Your task to perform on an android device: Open Google Chrome and click the shortcut for Amazon.com Image 0: 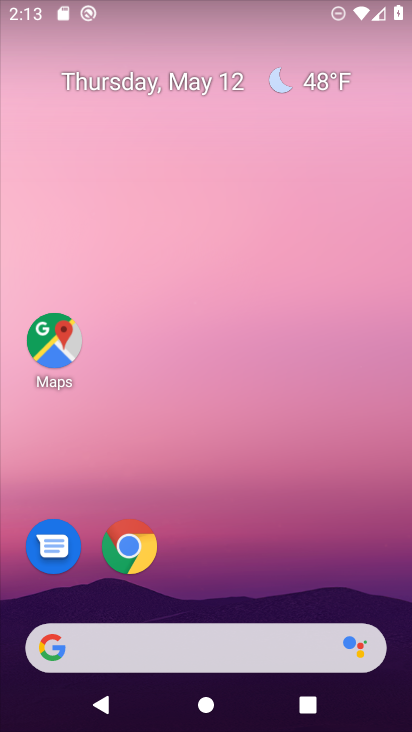
Step 0: drag from (287, 460) to (261, 309)
Your task to perform on an android device: Open Google Chrome and click the shortcut for Amazon.com Image 1: 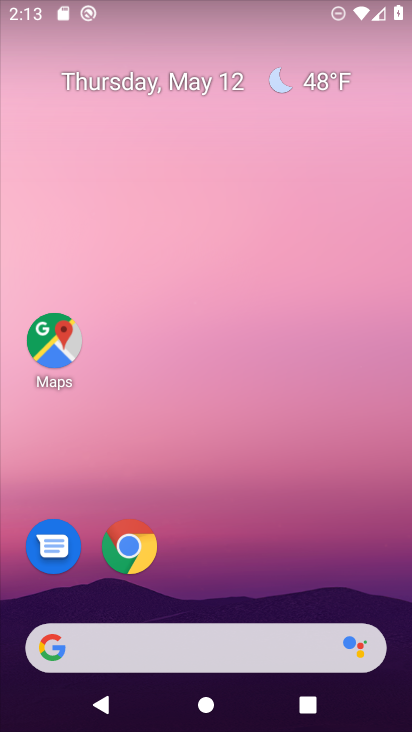
Step 1: drag from (272, 677) to (216, 106)
Your task to perform on an android device: Open Google Chrome and click the shortcut for Amazon.com Image 2: 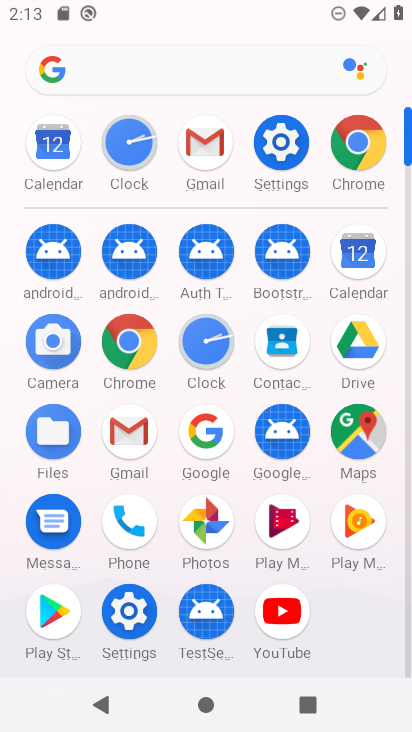
Step 2: click (345, 157)
Your task to perform on an android device: Open Google Chrome and click the shortcut for Amazon.com Image 3: 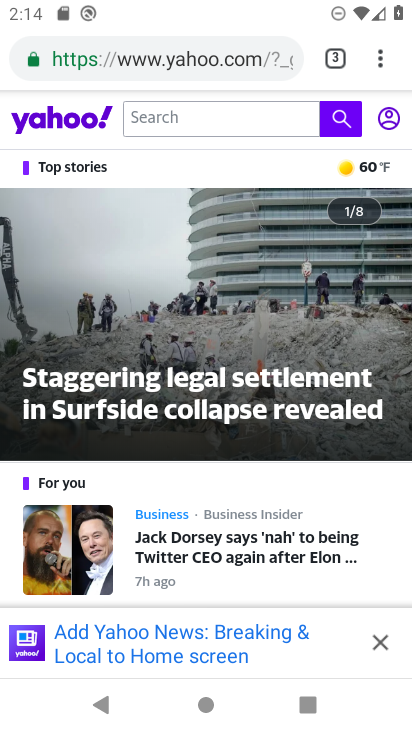
Step 3: click (375, 55)
Your task to perform on an android device: Open Google Chrome and click the shortcut for Amazon.com Image 4: 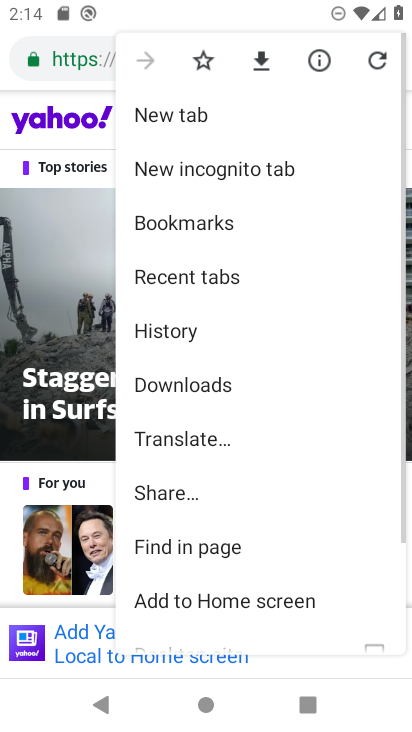
Step 4: click (223, 110)
Your task to perform on an android device: Open Google Chrome and click the shortcut for Amazon.com Image 5: 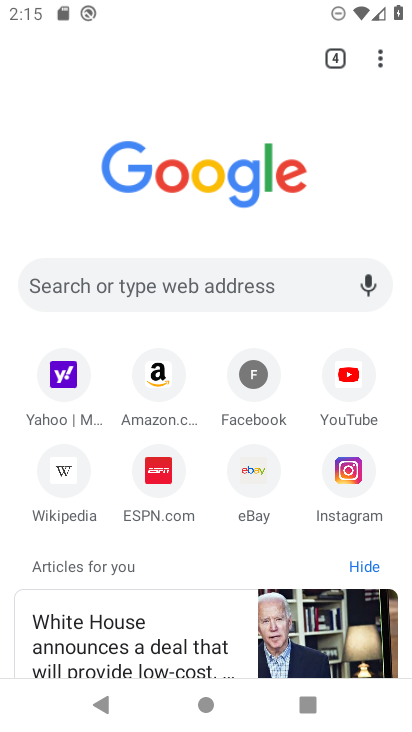
Step 5: click (166, 363)
Your task to perform on an android device: Open Google Chrome and click the shortcut for Amazon.com Image 6: 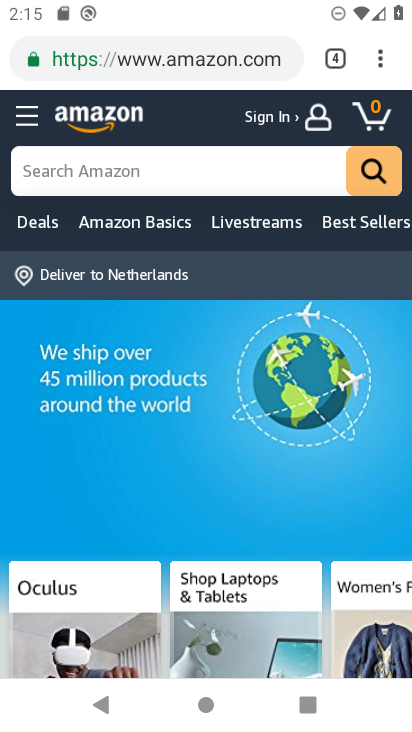
Step 6: task complete